Your task to perform on an android device: Open Google Maps and go to "Timeline" Image 0: 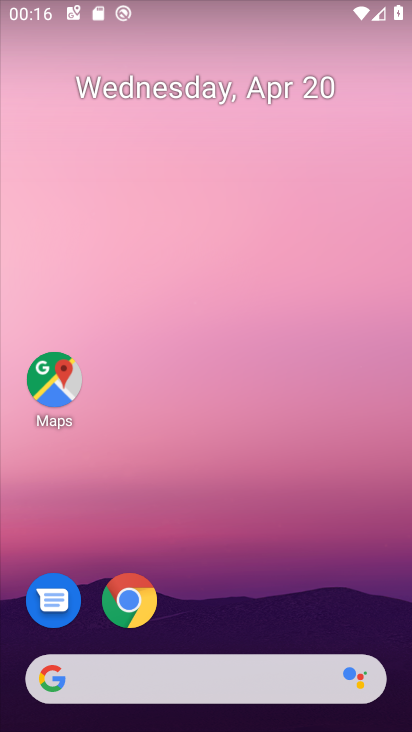
Step 0: drag from (385, 516) to (357, 193)
Your task to perform on an android device: Open Google Maps and go to "Timeline" Image 1: 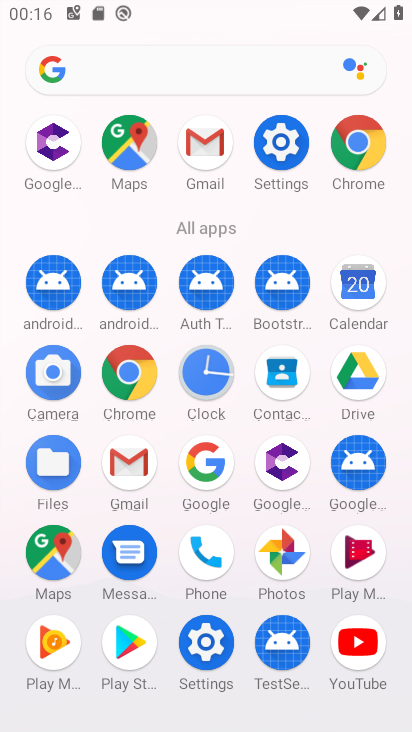
Step 1: click (130, 160)
Your task to perform on an android device: Open Google Maps and go to "Timeline" Image 2: 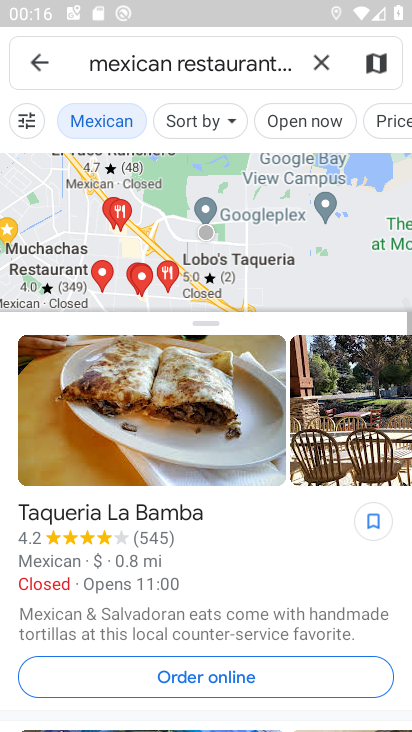
Step 2: click (28, 66)
Your task to perform on an android device: Open Google Maps and go to "Timeline" Image 3: 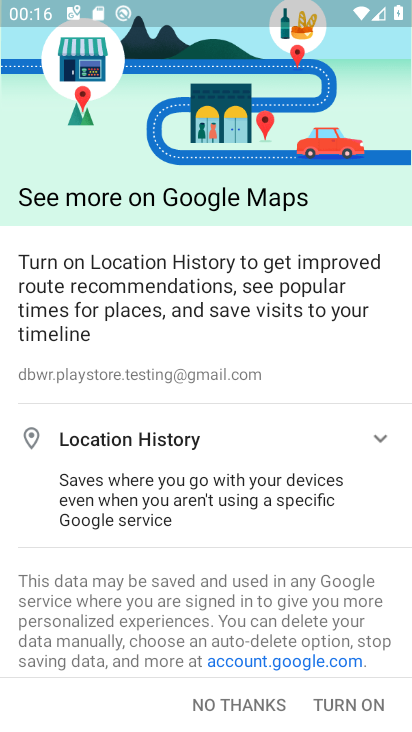
Step 3: click (260, 691)
Your task to perform on an android device: Open Google Maps and go to "Timeline" Image 4: 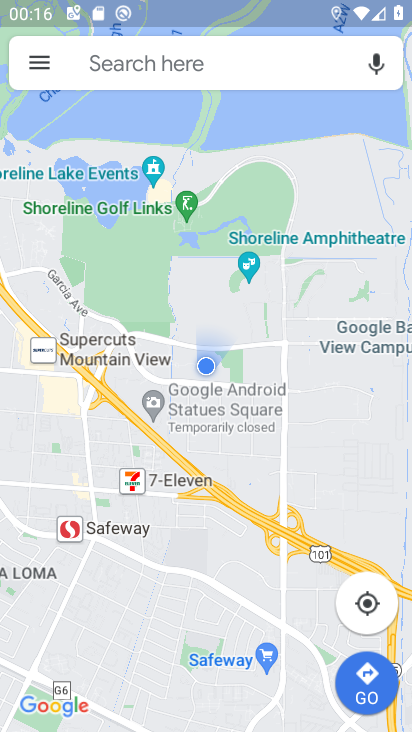
Step 4: click (28, 69)
Your task to perform on an android device: Open Google Maps and go to "Timeline" Image 5: 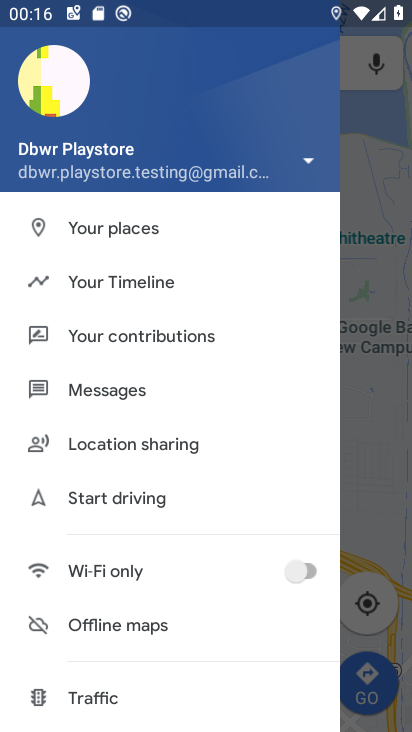
Step 5: click (158, 271)
Your task to perform on an android device: Open Google Maps and go to "Timeline" Image 6: 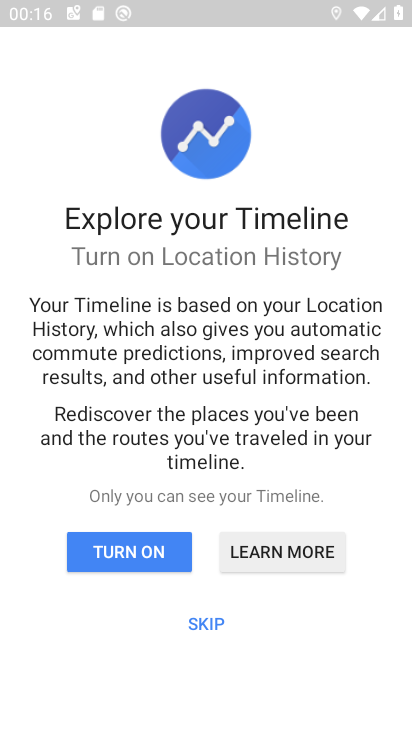
Step 6: click (215, 616)
Your task to perform on an android device: Open Google Maps and go to "Timeline" Image 7: 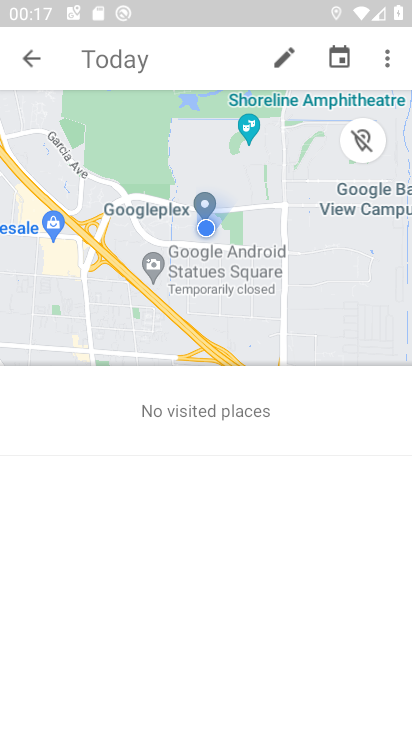
Step 7: task complete